Your task to perform on an android device: refresh tabs in the chrome app Image 0: 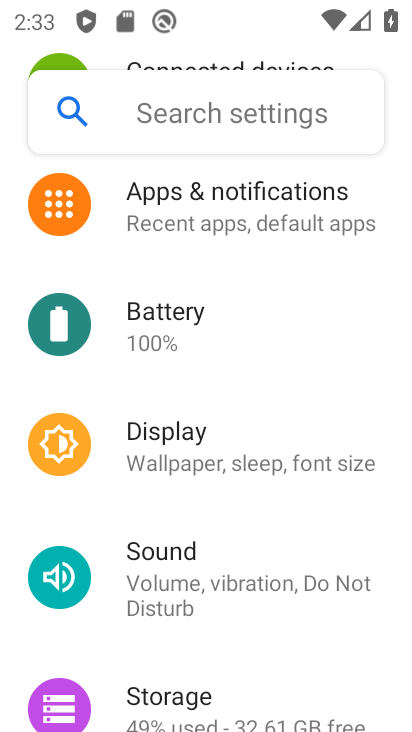
Step 0: press back button
Your task to perform on an android device: refresh tabs in the chrome app Image 1: 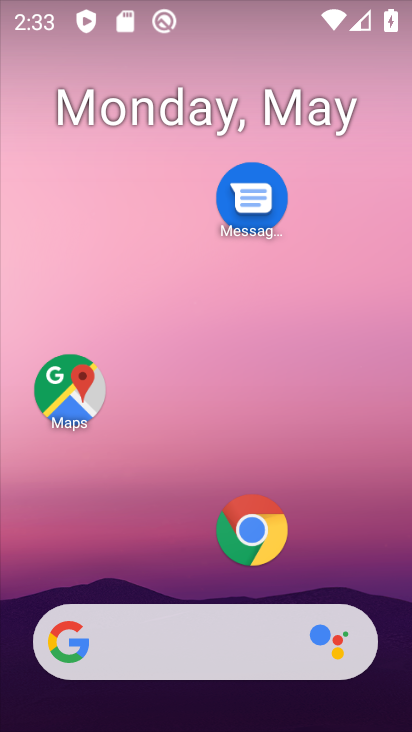
Step 1: click (255, 525)
Your task to perform on an android device: refresh tabs in the chrome app Image 2: 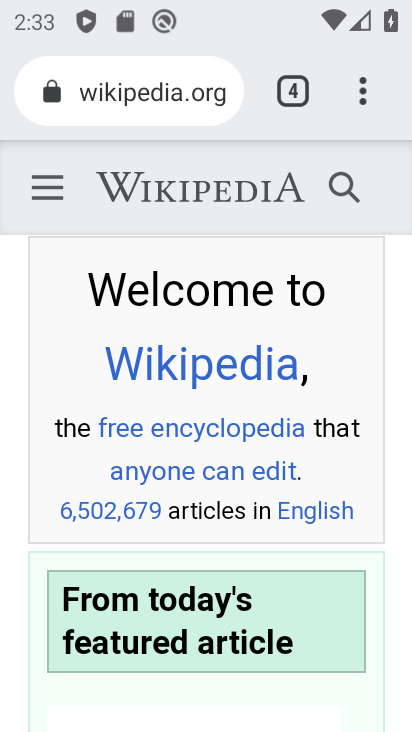
Step 2: task complete